Your task to perform on an android device: check storage Image 0: 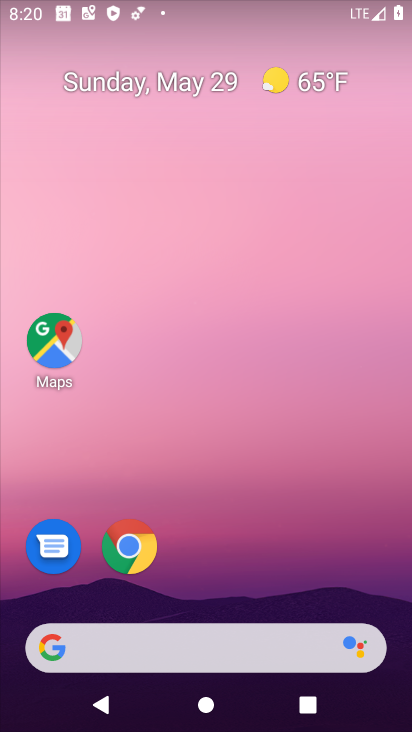
Step 0: drag from (144, 617) to (235, 75)
Your task to perform on an android device: check storage Image 1: 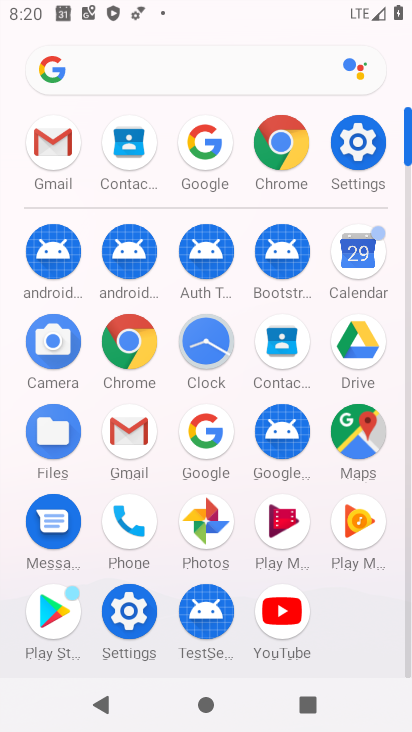
Step 1: click (348, 149)
Your task to perform on an android device: check storage Image 2: 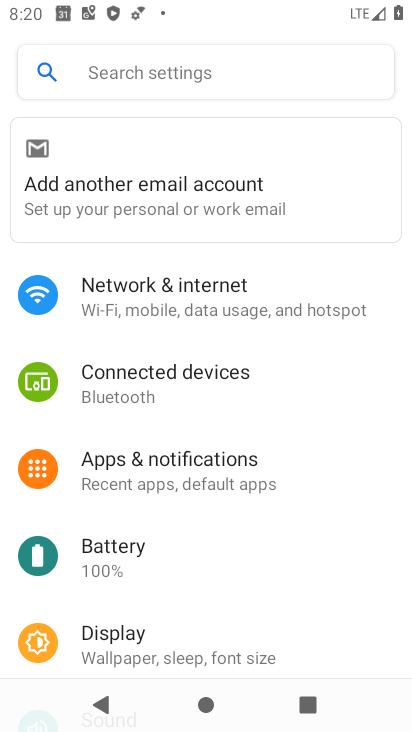
Step 2: drag from (172, 656) to (216, 176)
Your task to perform on an android device: check storage Image 3: 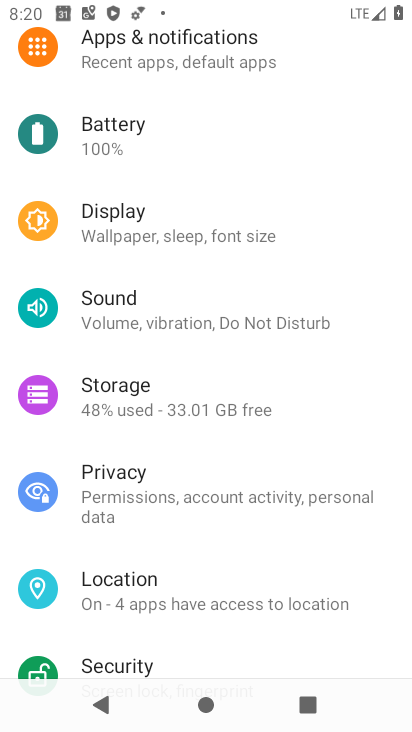
Step 3: click (143, 401)
Your task to perform on an android device: check storage Image 4: 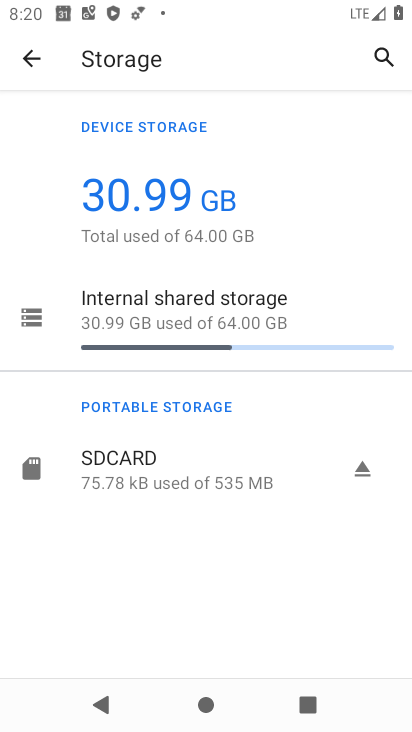
Step 4: task complete